Your task to perform on an android device: Open the phone app and click the voicemail tab. Image 0: 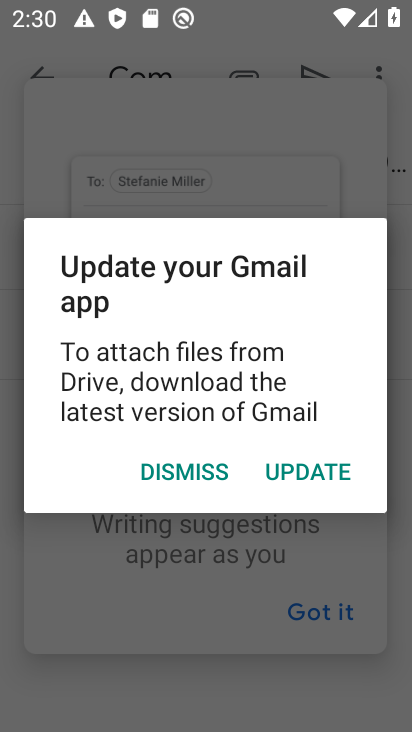
Step 0: press home button
Your task to perform on an android device: Open the phone app and click the voicemail tab. Image 1: 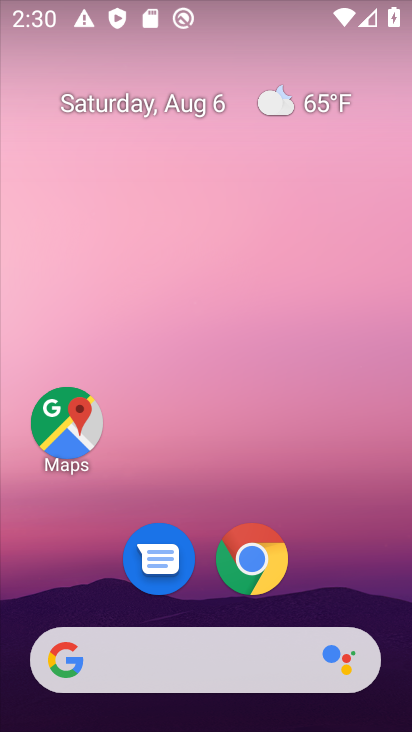
Step 1: drag from (205, 415) to (188, 114)
Your task to perform on an android device: Open the phone app and click the voicemail tab. Image 2: 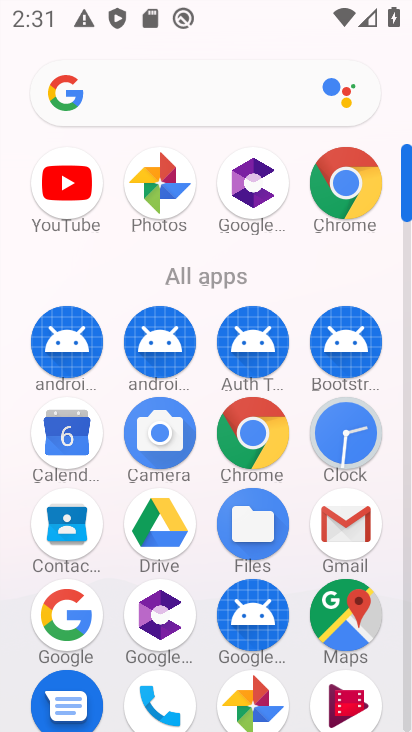
Step 2: click (165, 697)
Your task to perform on an android device: Open the phone app and click the voicemail tab. Image 3: 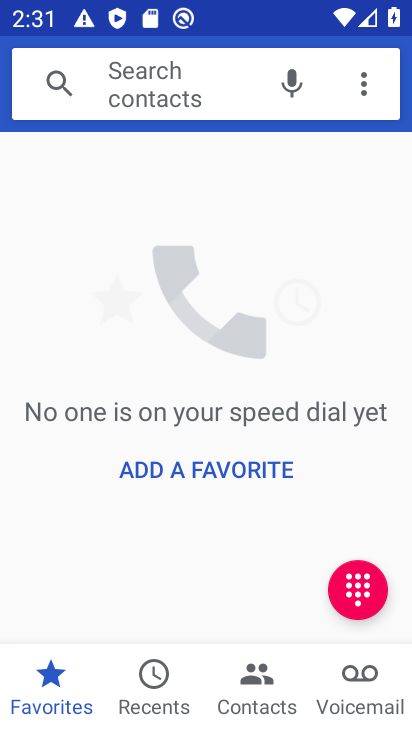
Step 3: click (354, 697)
Your task to perform on an android device: Open the phone app and click the voicemail tab. Image 4: 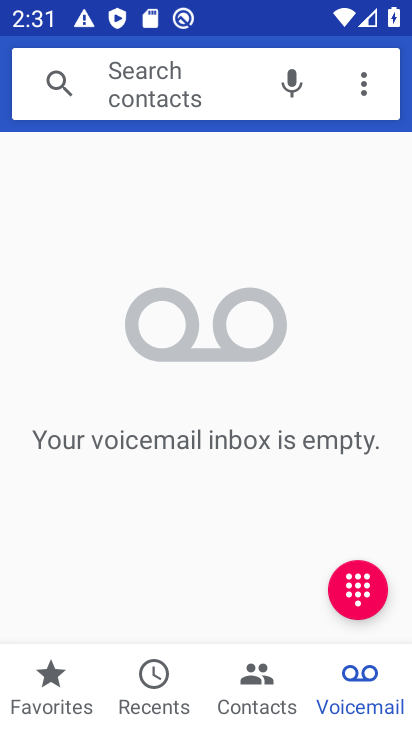
Step 4: task complete